Your task to perform on an android device: change the clock display to show seconds Image 0: 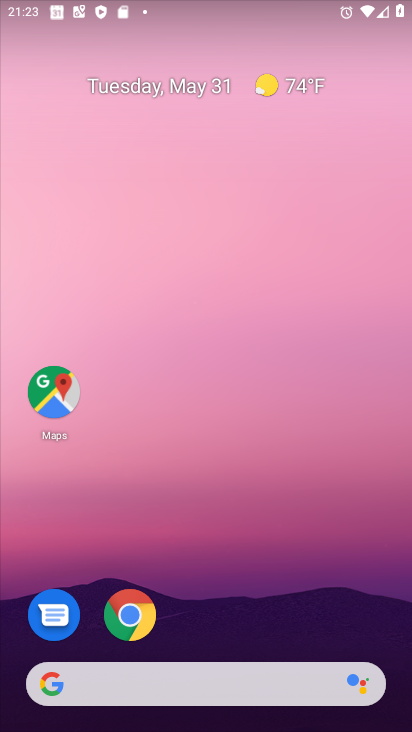
Step 0: drag from (207, 632) to (215, 263)
Your task to perform on an android device: change the clock display to show seconds Image 1: 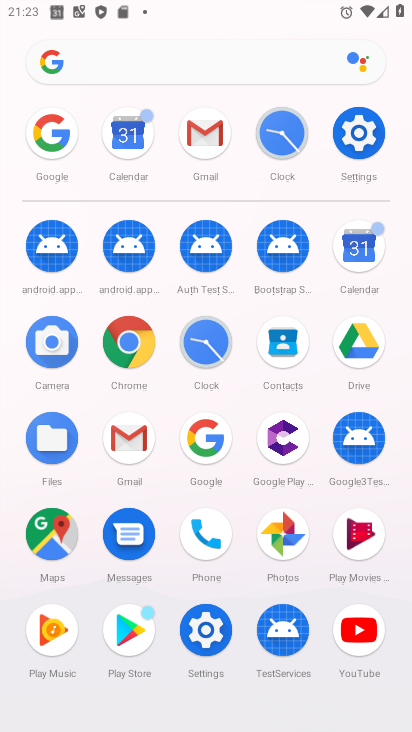
Step 1: click (294, 147)
Your task to perform on an android device: change the clock display to show seconds Image 2: 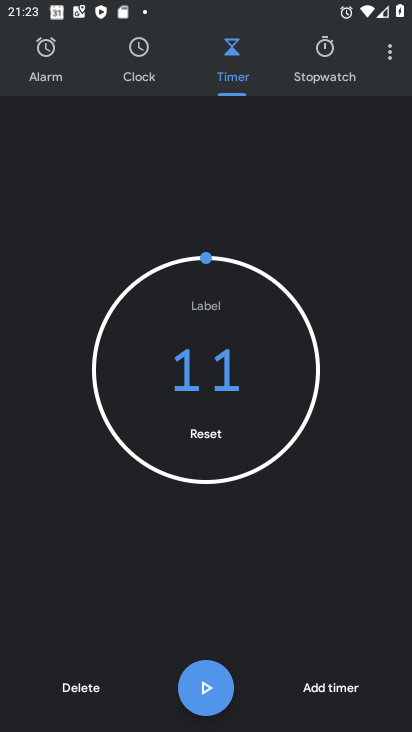
Step 2: click (380, 57)
Your task to perform on an android device: change the clock display to show seconds Image 3: 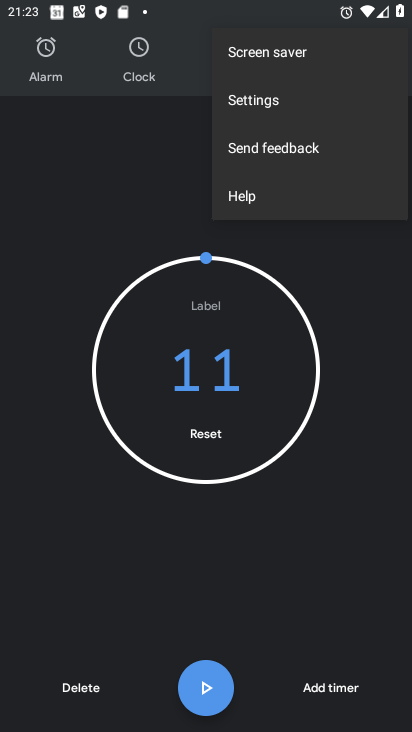
Step 3: click (294, 106)
Your task to perform on an android device: change the clock display to show seconds Image 4: 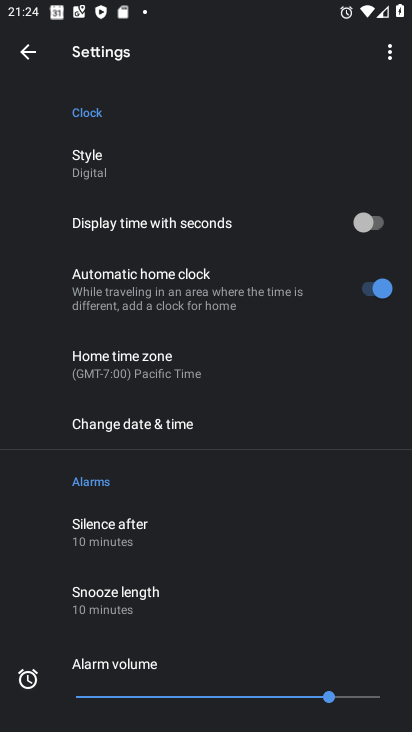
Step 4: click (380, 215)
Your task to perform on an android device: change the clock display to show seconds Image 5: 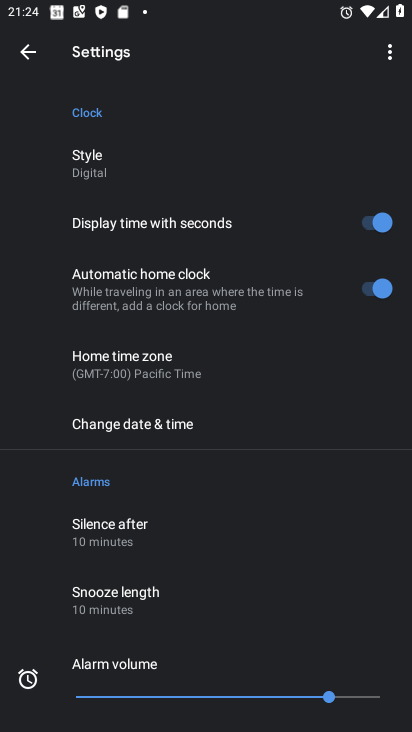
Step 5: task complete